Your task to perform on an android device: make emails show in primary in the gmail app Image 0: 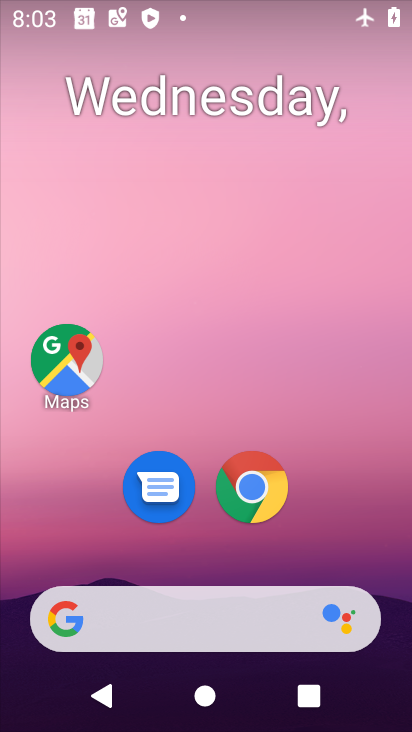
Step 0: drag from (362, 574) to (338, 25)
Your task to perform on an android device: make emails show in primary in the gmail app Image 1: 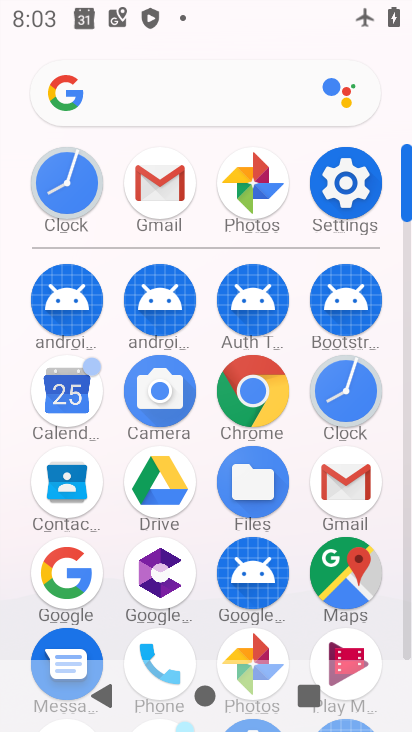
Step 1: click (160, 176)
Your task to perform on an android device: make emails show in primary in the gmail app Image 2: 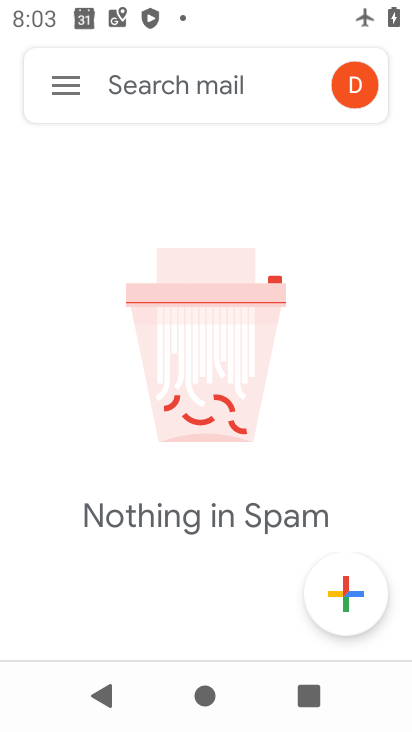
Step 2: click (67, 87)
Your task to perform on an android device: make emails show in primary in the gmail app Image 3: 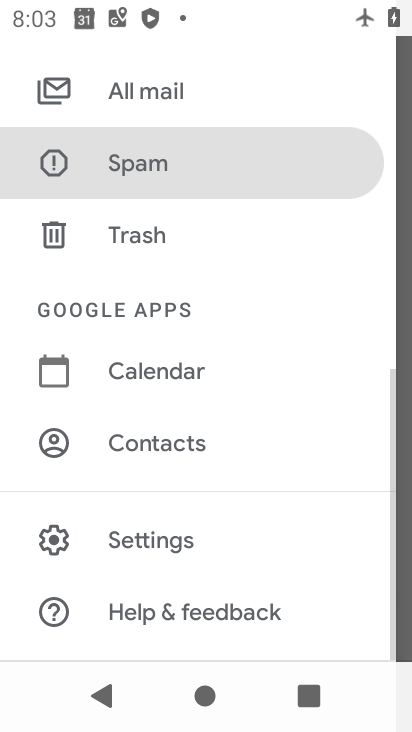
Step 3: click (100, 534)
Your task to perform on an android device: make emails show in primary in the gmail app Image 4: 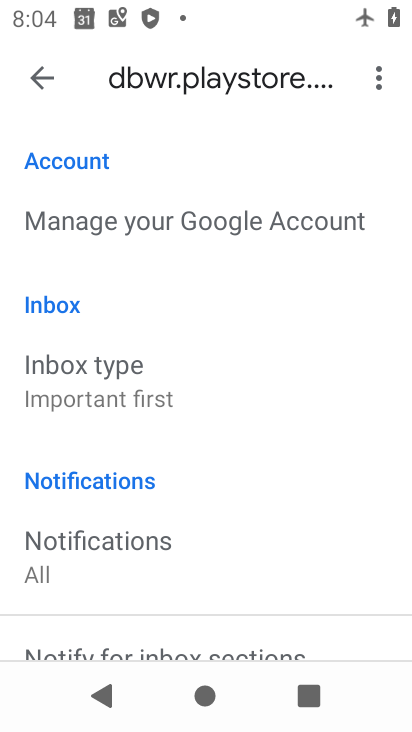
Step 4: task complete